Your task to perform on an android device: Open battery settings Image 0: 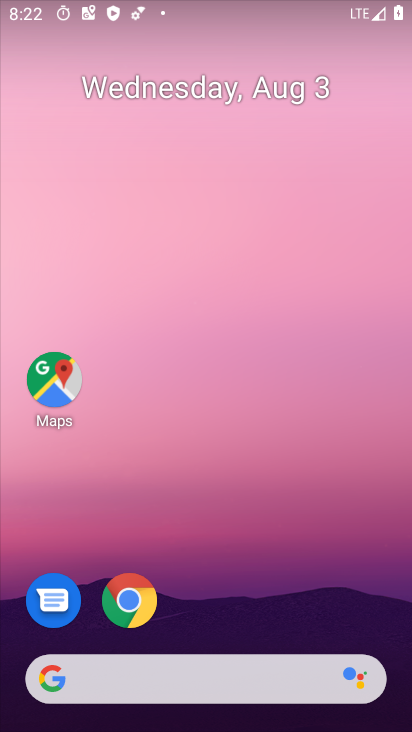
Step 0: drag from (203, 624) to (289, 3)
Your task to perform on an android device: Open battery settings Image 1: 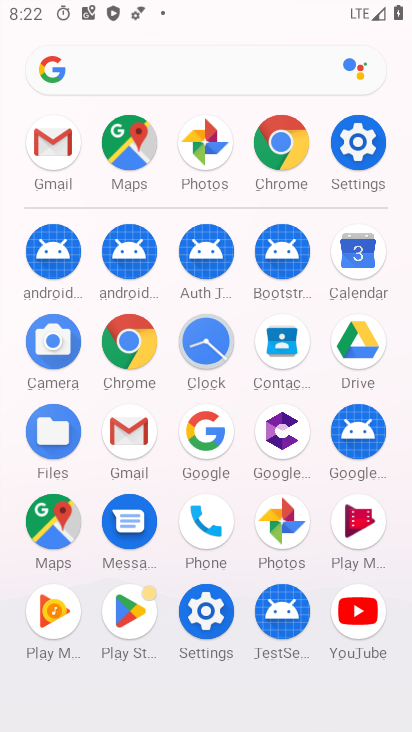
Step 1: click (199, 628)
Your task to perform on an android device: Open battery settings Image 2: 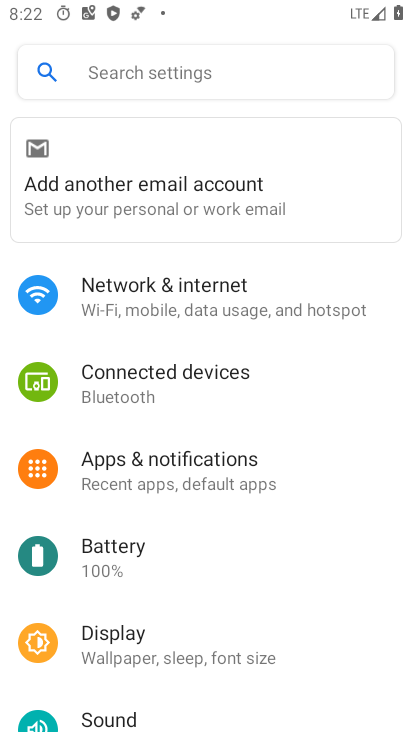
Step 2: click (150, 546)
Your task to perform on an android device: Open battery settings Image 3: 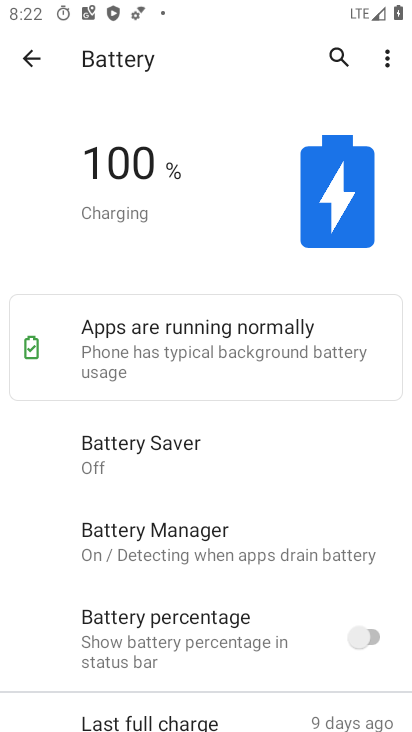
Step 3: task complete